Your task to perform on an android device: toggle improve location accuracy Image 0: 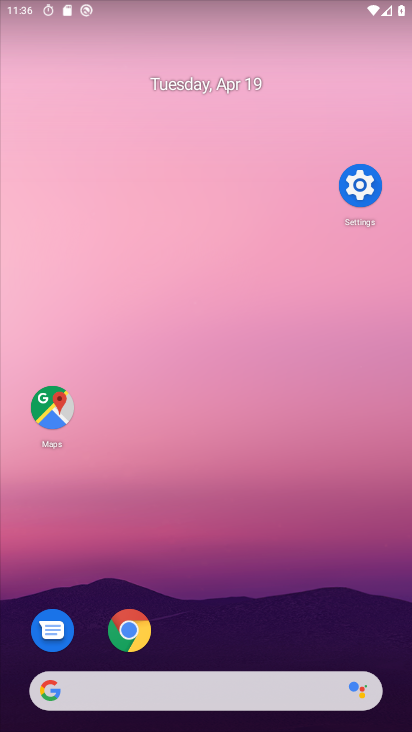
Step 0: drag from (186, 535) to (159, 175)
Your task to perform on an android device: toggle improve location accuracy Image 1: 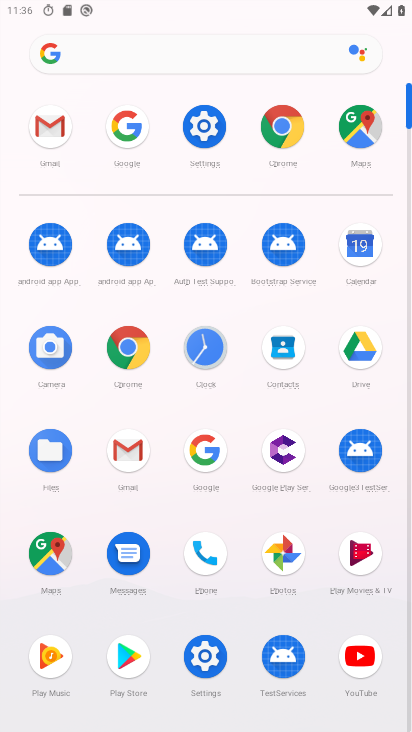
Step 1: click (213, 126)
Your task to perform on an android device: toggle improve location accuracy Image 2: 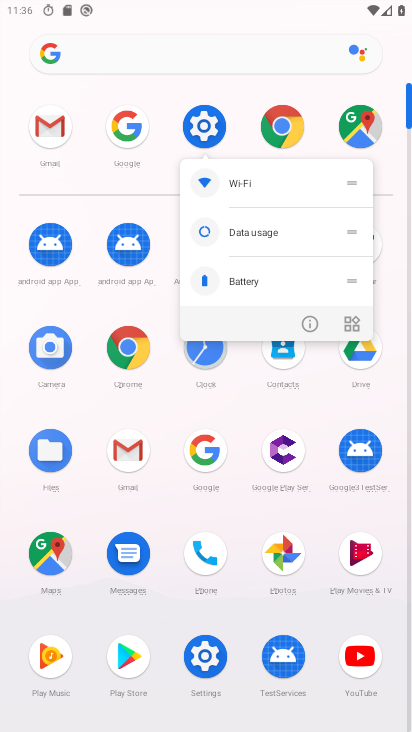
Step 2: click (216, 135)
Your task to perform on an android device: toggle improve location accuracy Image 3: 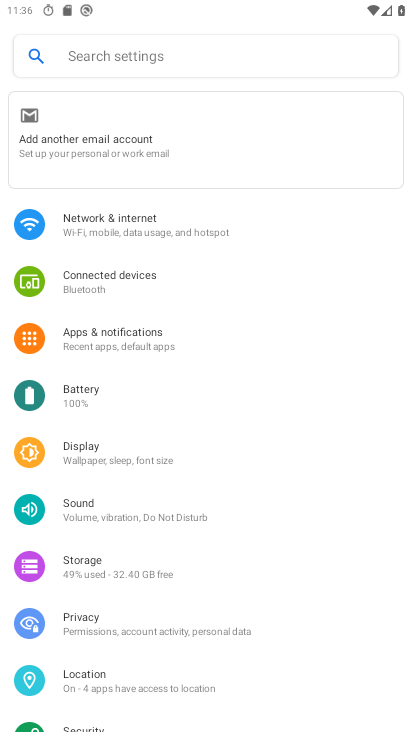
Step 3: click (187, 681)
Your task to perform on an android device: toggle improve location accuracy Image 4: 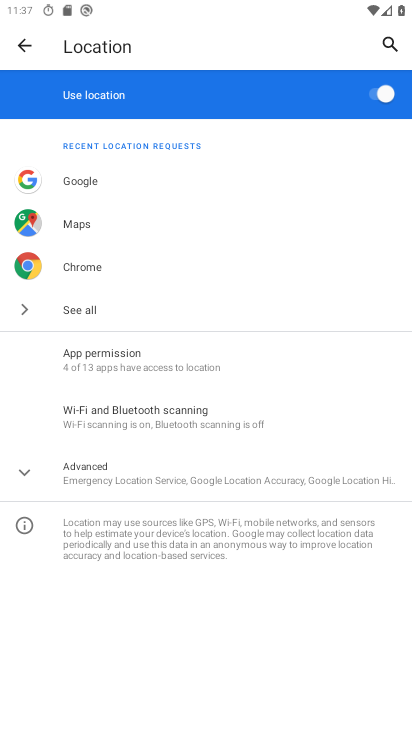
Step 4: click (238, 482)
Your task to perform on an android device: toggle improve location accuracy Image 5: 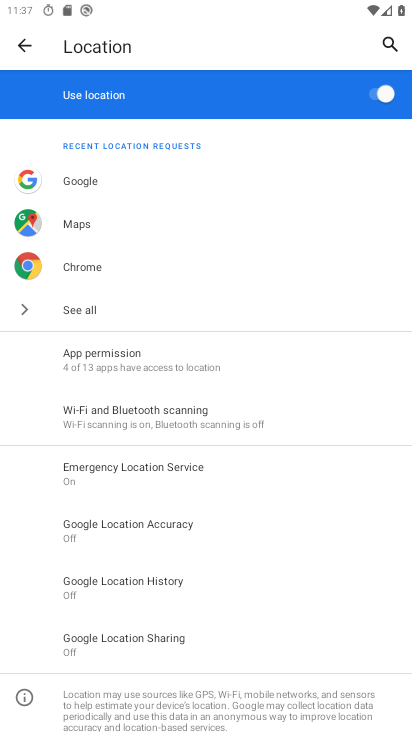
Step 5: click (221, 526)
Your task to perform on an android device: toggle improve location accuracy Image 6: 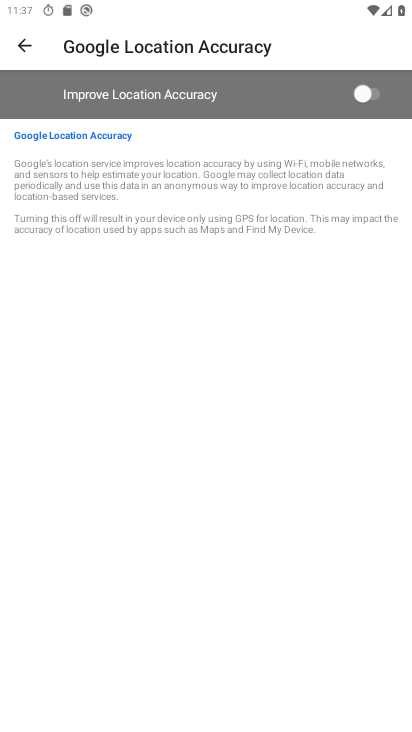
Step 6: click (379, 95)
Your task to perform on an android device: toggle improve location accuracy Image 7: 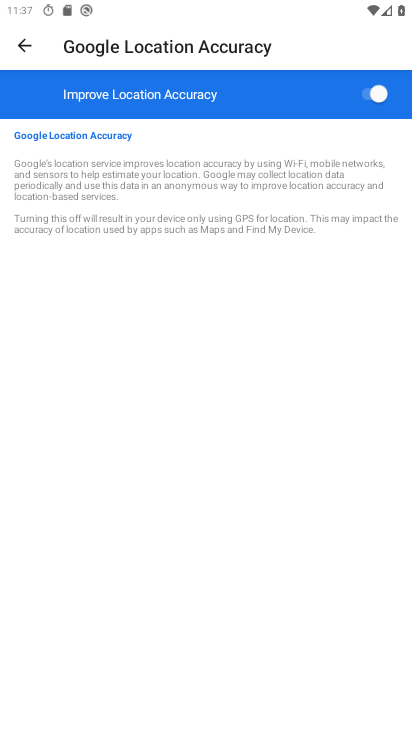
Step 7: task complete